Your task to perform on an android device: change alarm snooze length Image 0: 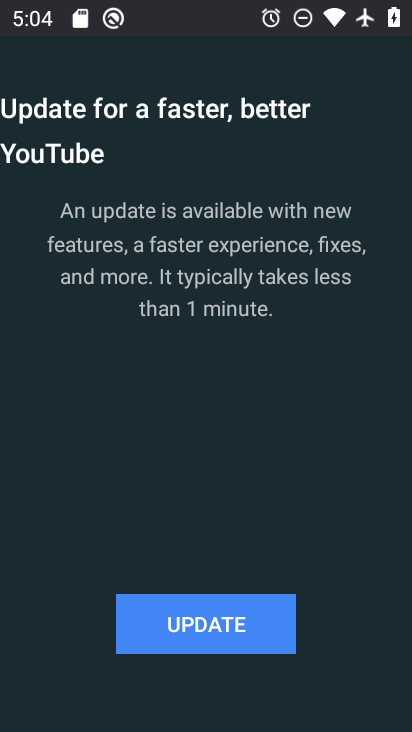
Step 0: press home button
Your task to perform on an android device: change alarm snooze length Image 1: 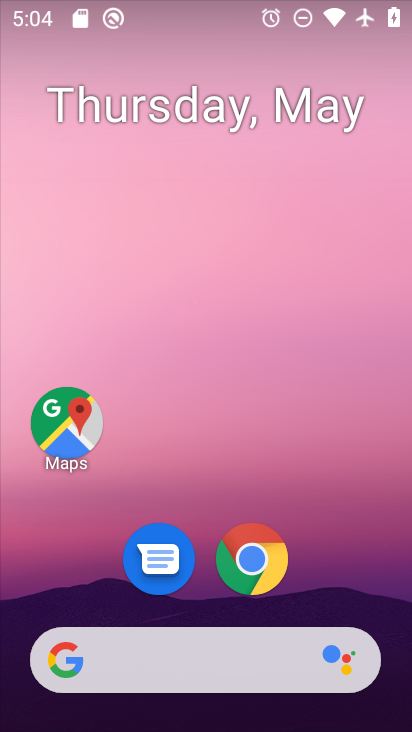
Step 1: drag from (341, 570) to (179, 43)
Your task to perform on an android device: change alarm snooze length Image 2: 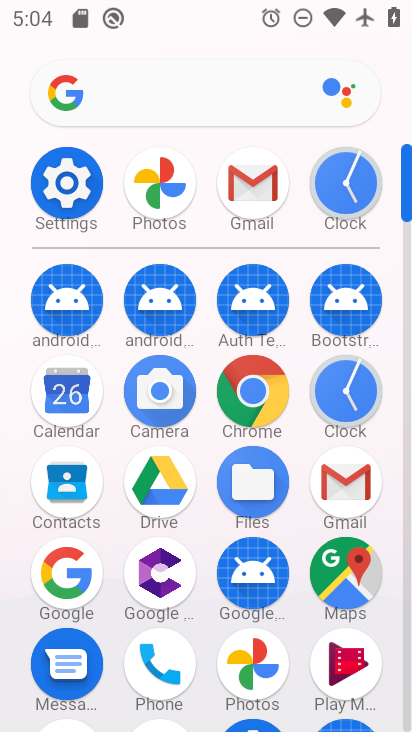
Step 2: click (349, 397)
Your task to perform on an android device: change alarm snooze length Image 3: 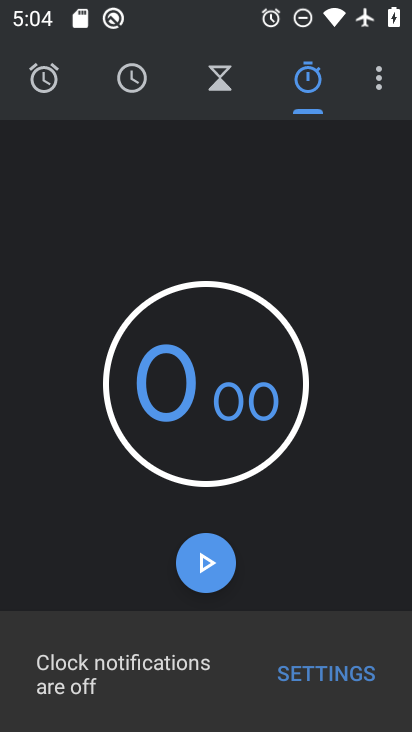
Step 3: click (372, 72)
Your task to perform on an android device: change alarm snooze length Image 4: 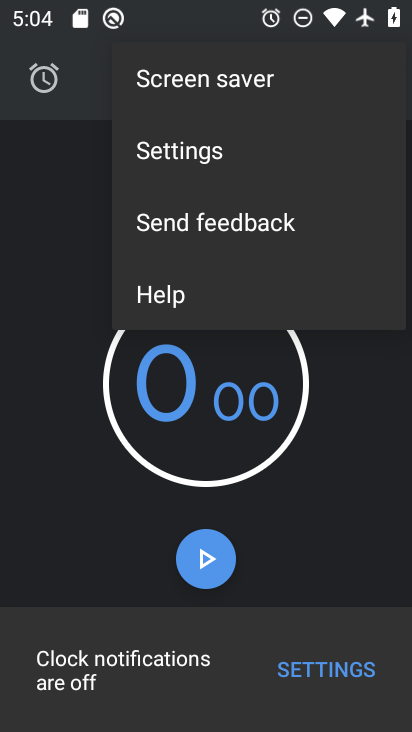
Step 4: click (208, 152)
Your task to perform on an android device: change alarm snooze length Image 5: 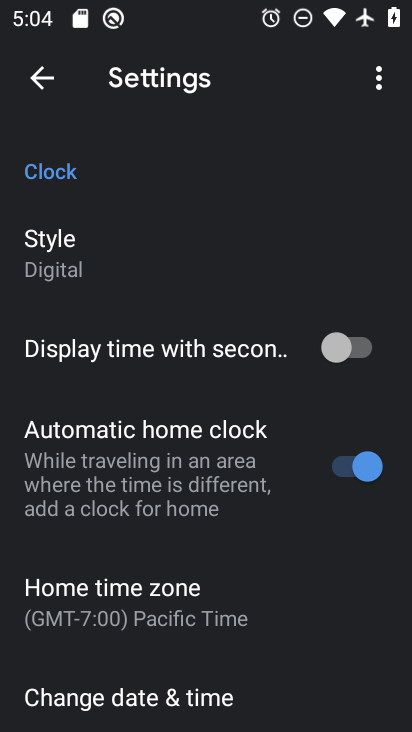
Step 5: drag from (281, 615) to (206, 48)
Your task to perform on an android device: change alarm snooze length Image 6: 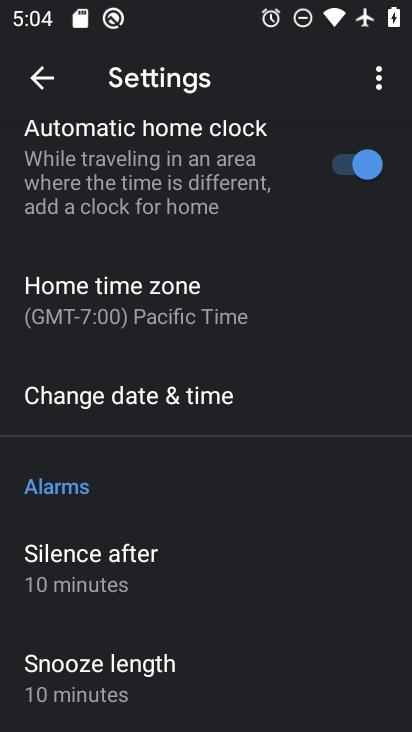
Step 6: click (172, 659)
Your task to perform on an android device: change alarm snooze length Image 7: 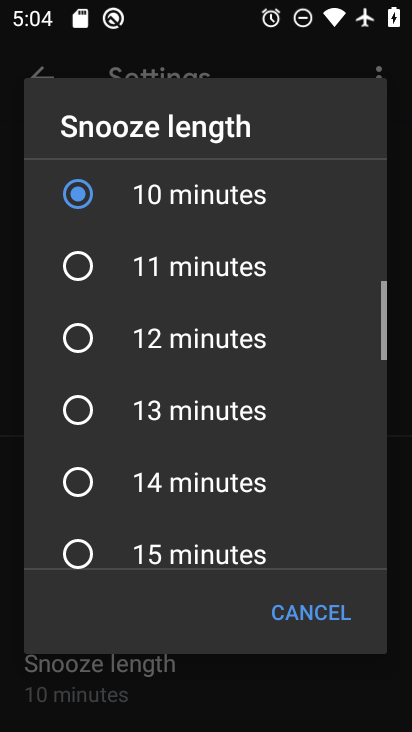
Step 7: click (195, 279)
Your task to perform on an android device: change alarm snooze length Image 8: 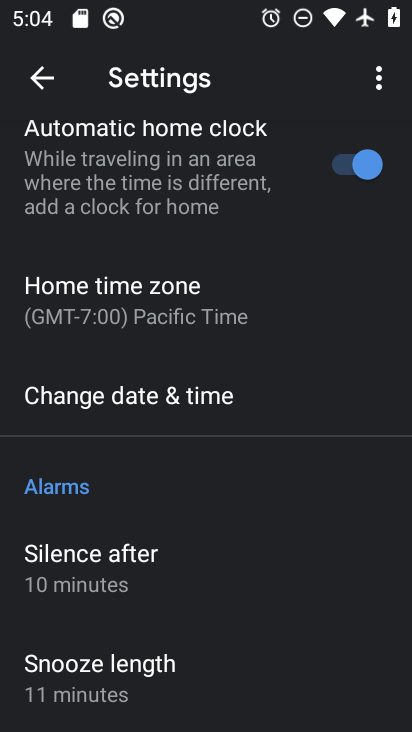
Step 8: task complete